Your task to perform on an android device: move an email to a new category in the gmail app Image 0: 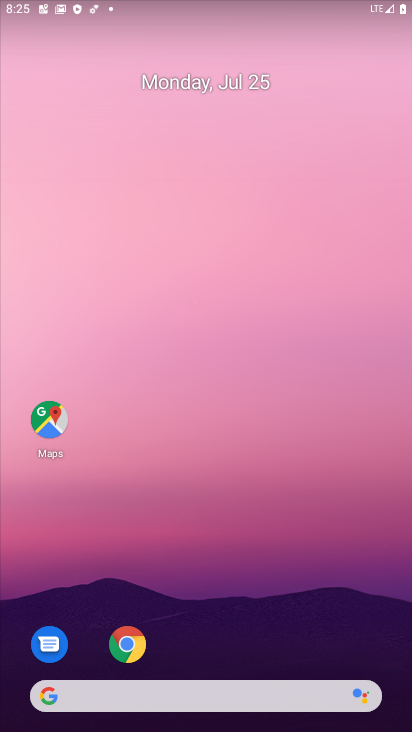
Step 0: drag from (235, 537) to (232, 63)
Your task to perform on an android device: move an email to a new category in the gmail app Image 1: 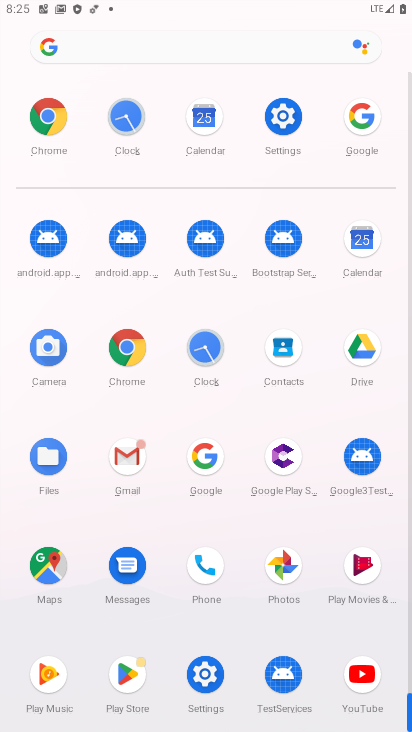
Step 1: click (134, 463)
Your task to perform on an android device: move an email to a new category in the gmail app Image 2: 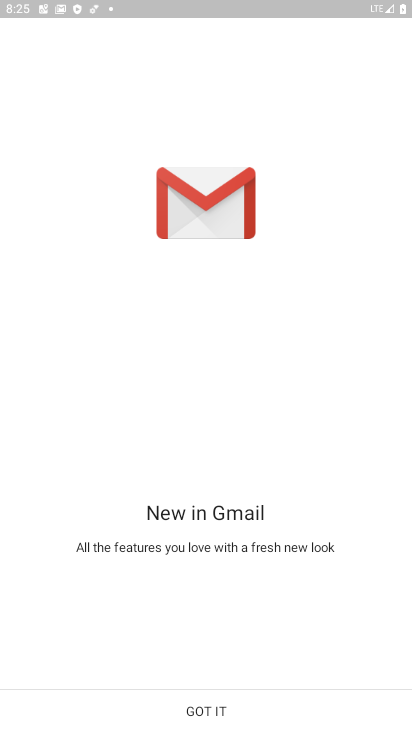
Step 2: click (204, 706)
Your task to perform on an android device: move an email to a new category in the gmail app Image 3: 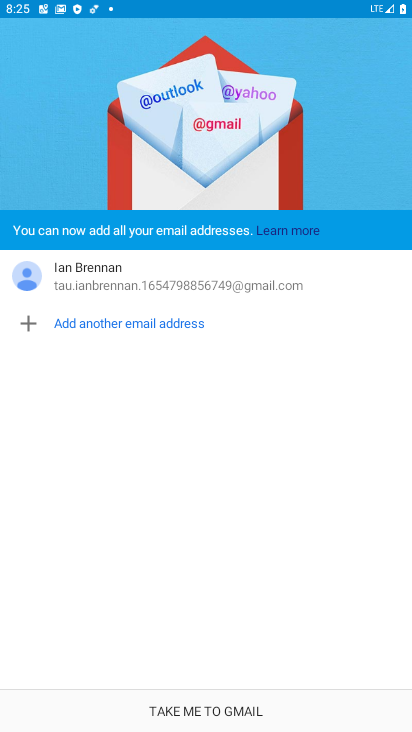
Step 3: click (206, 708)
Your task to perform on an android device: move an email to a new category in the gmail app Image 4: 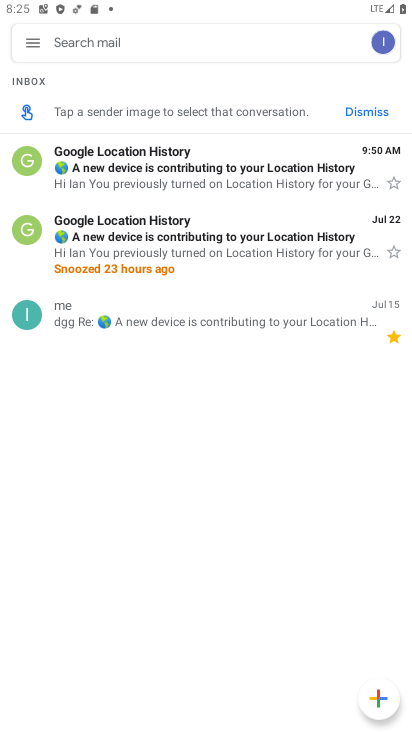
Step 4: click (162, 162)
Your task to perform on an android device: move an email to a new category in the gmail app Image 5: 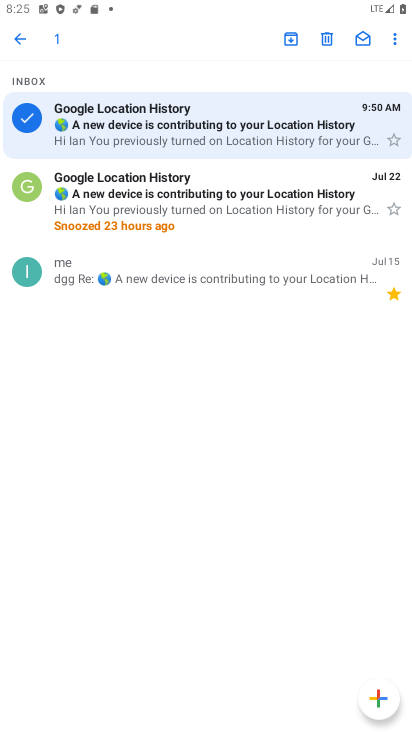
Step 5: click (395, 39)
Your task to perform on an android device: move an email to a new category in the gmail app Image 6: 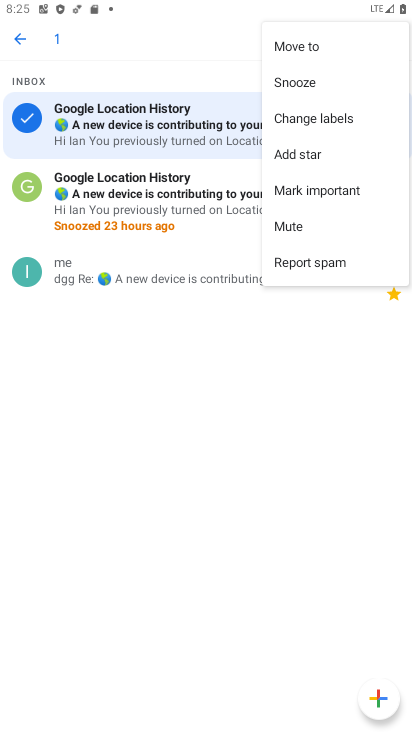
Step 6: click (348, 49)
Your task to perform on an android device: move an email to a new category in the gmail app Image 7: 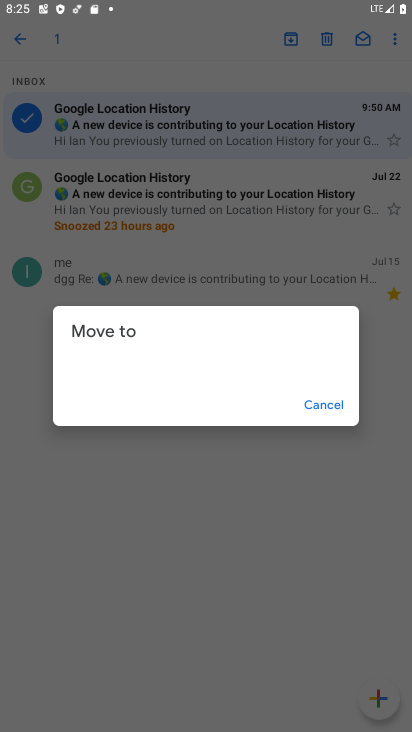
Step 7: click (196, 360)
Your task to perform on an android device: move an email to a new category in the gmail app Image 8: 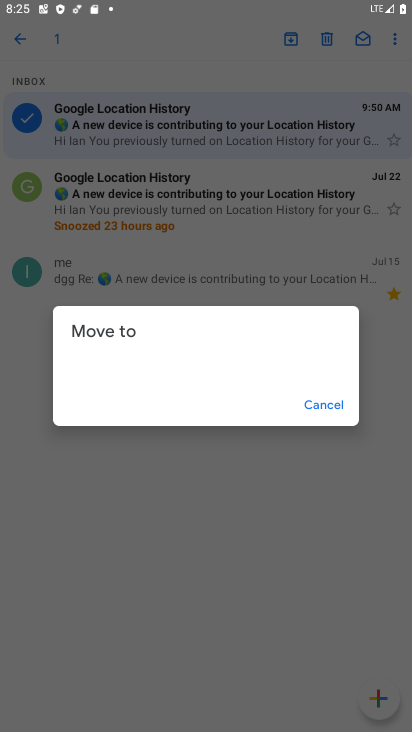
Step 8: click (310, 408)
Your task to perform on an android device: move an email to a new category in the gmail app Image 9: 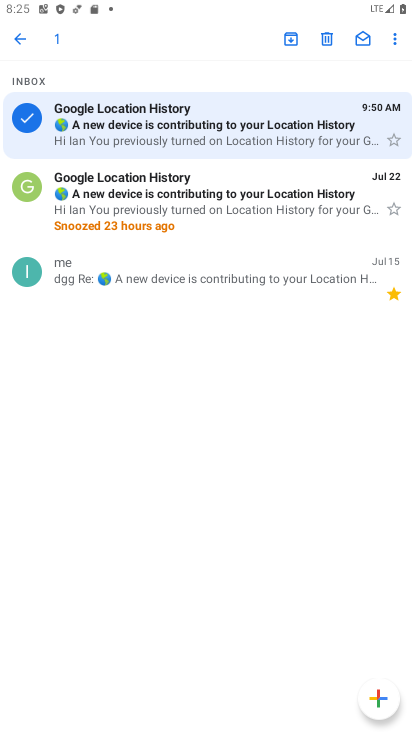
Step 9: click (392, 48)
Your task to perform on an android device: move an email to a new category in the gmail app Image 10: 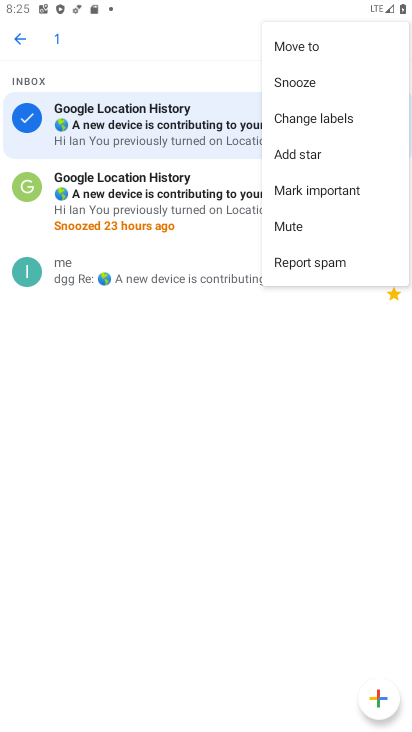
Step 10: click (336, 42)
Your task to perform on an android device: move an email to a new category in the gmail app Image 11: 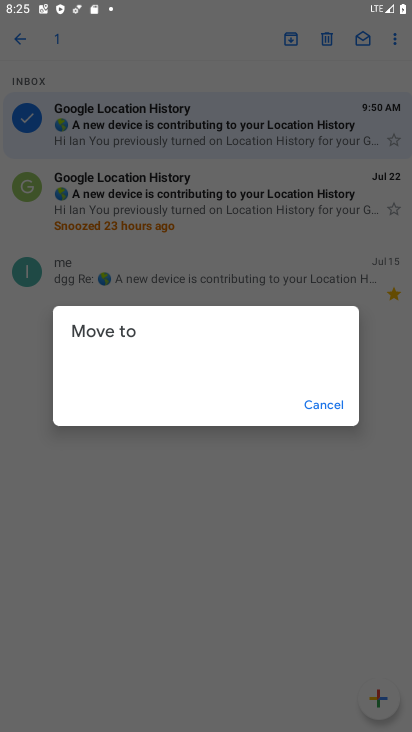
Step 11: click (328, 407)
Your task to perform on an android device: move an email to a new category in the gmail app Image 12: 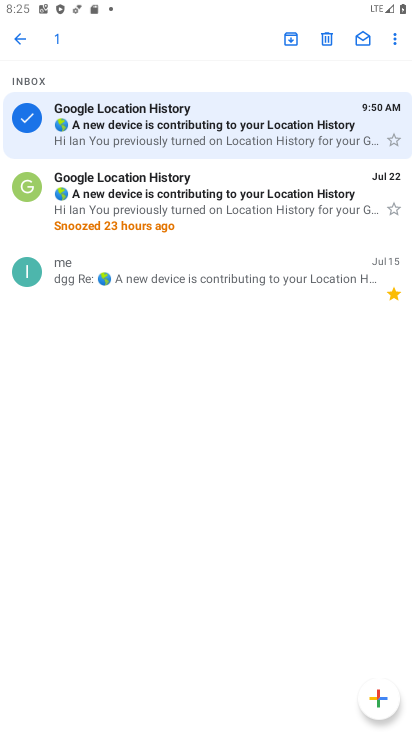
Step 12: click (393, 44)
Your task to perform on an android device: move an email to a new category in the gmail app Image 13: 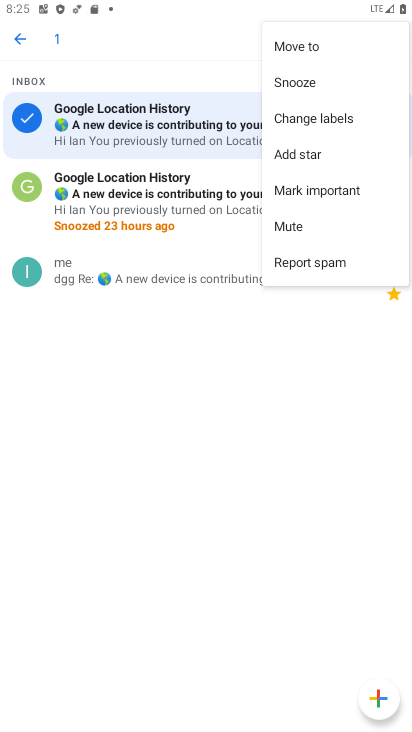
Step 13: click (350, 117)
Your task to perform on an android device: move an email to a new category in the gmail app Image 14: 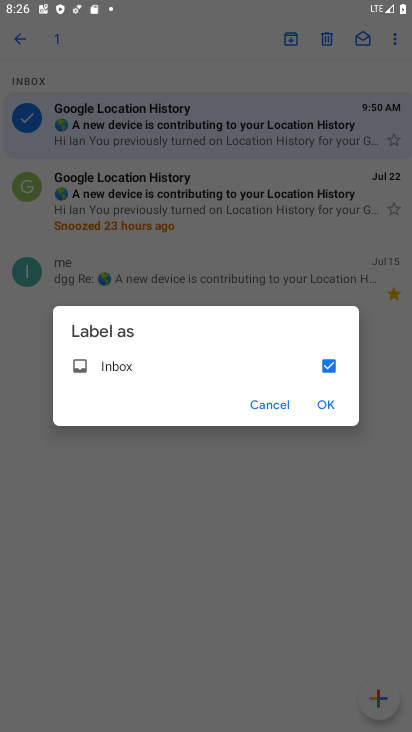
Step 14: click (323, 403)
Your task to perform on an android device: move an email to a new category in the gmail app Image 15: 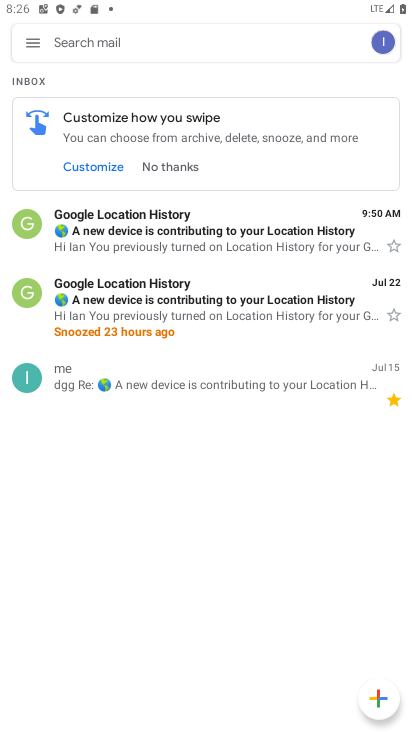
Step 15: task complete